Your task to perform on an android device: move a message to another label in the gmail app Image 0: 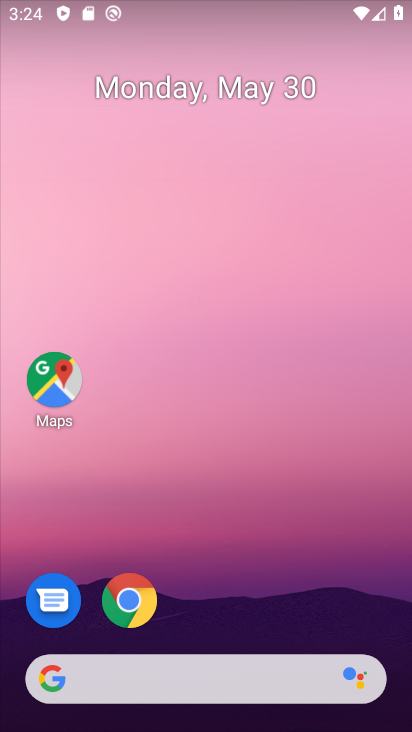
Step 0: drag from (324, 614) to (247, 178)
Your task to perform on an android device: move a message to another label in the gmail app Image 1: 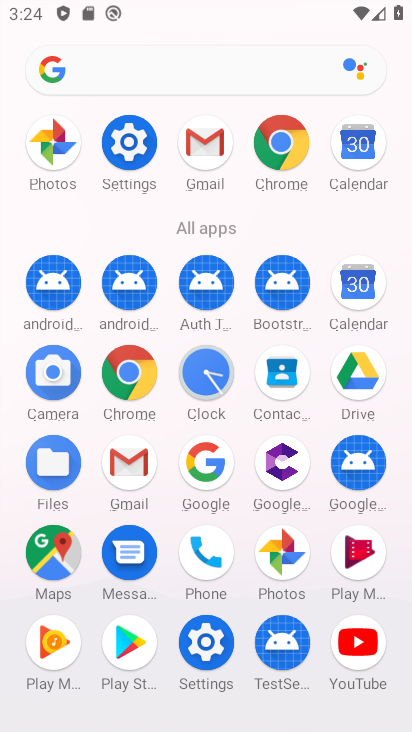
Step 1: click (125, 452)
Your task to perform on an android device: move a message to another label in the gmail app Image 2: 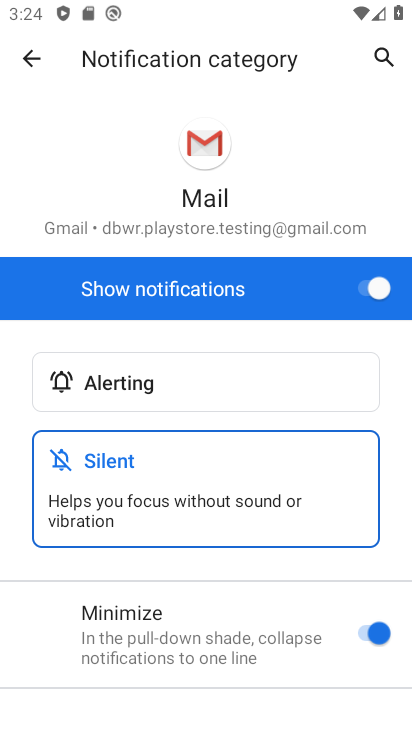
Step 2: click (24, 52)
Your task to perform on an android device: move a message to another label in the gmail app Image 3: 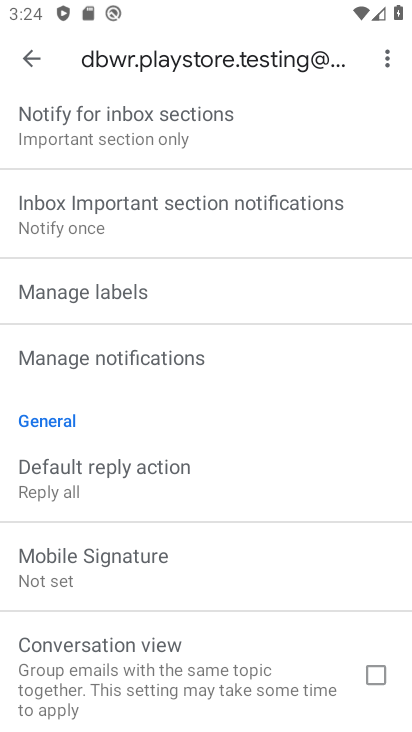
Step 3: drag from (161, 380) to (37, 65)
Your task to perform on an android device: move a message to another label in the gmail app Image 4: 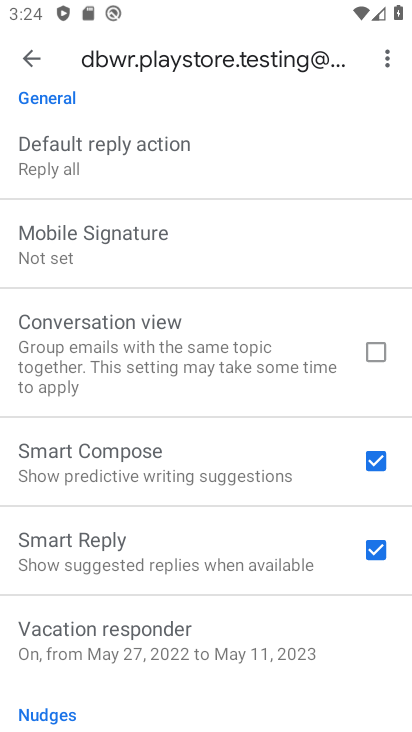
Step 4: click (32, 64)
Your task to perform on an android device: move a message to another label in the gmail app Image 5: 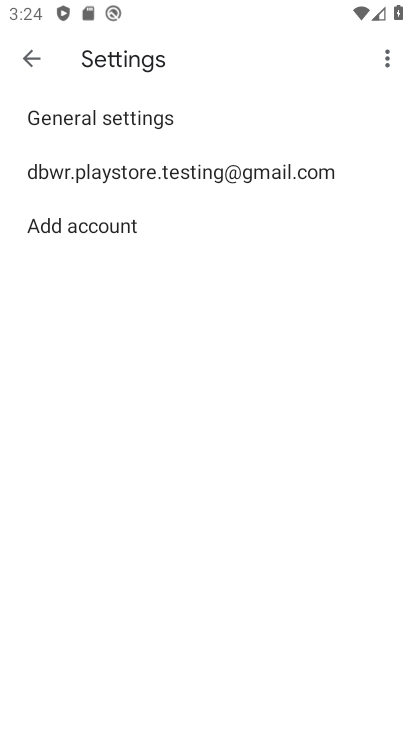
Step 5: click (32, 64)
Your task to perform on an android device: move a message to another label in the gmail app Image 6: 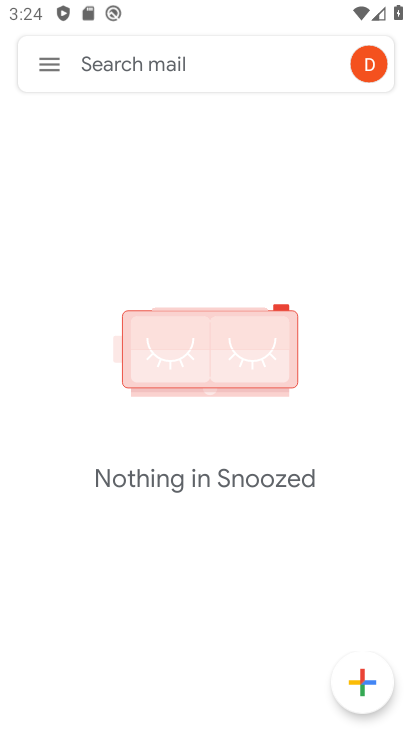
Step 6: click (52, 68)
Your task to perform on an android device: move a message to another label in the gmail app Image 7: 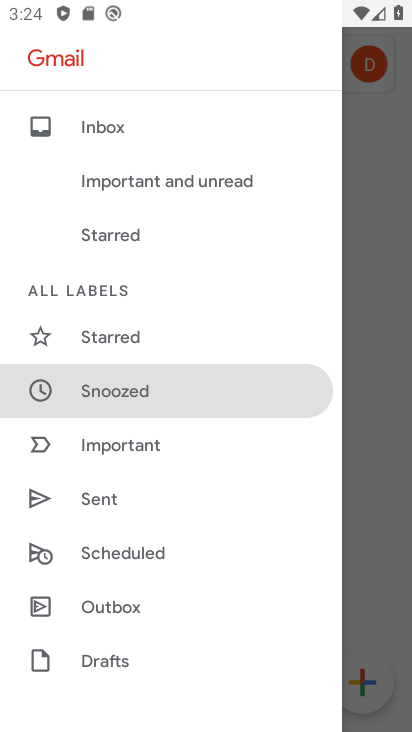
Step 7: click (116, 133)
Your task to perform on an android device: move a message to another label in the gmail app Image 8: 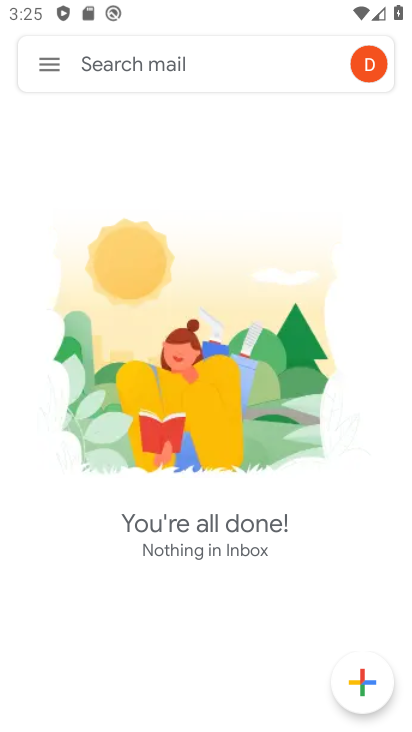
Step 8: task complete